Your task to perform on an android device: Turn on the flashlight Image 0: 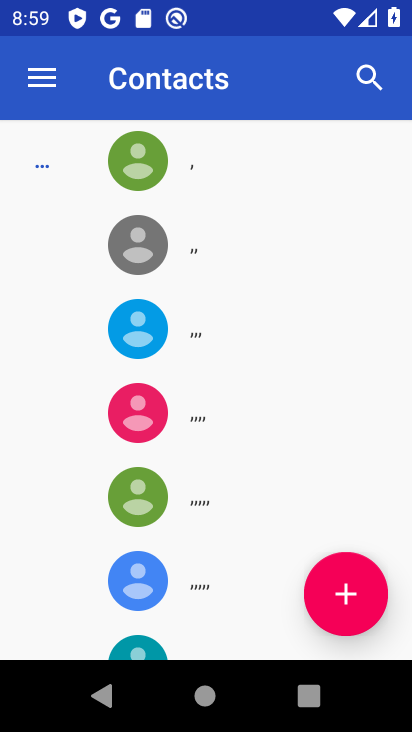
Step 0: press back button
Your task to perform on an android device: Turn on the flashlight Image 1: 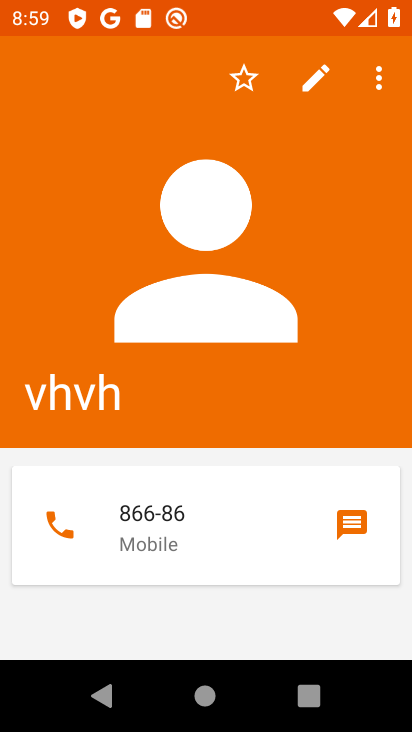
Step 1: press back button
Your task to perform on an android device: Turn on the flashlight Image 2: 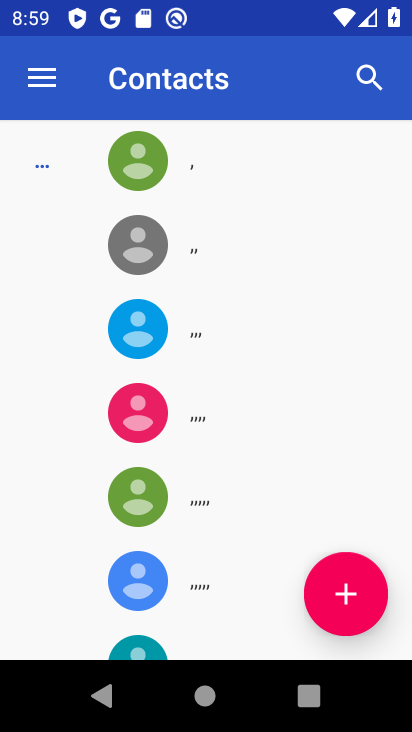
Step 2: press back button
Your task to perform on an android device: Turn on the flashlight Image 3: 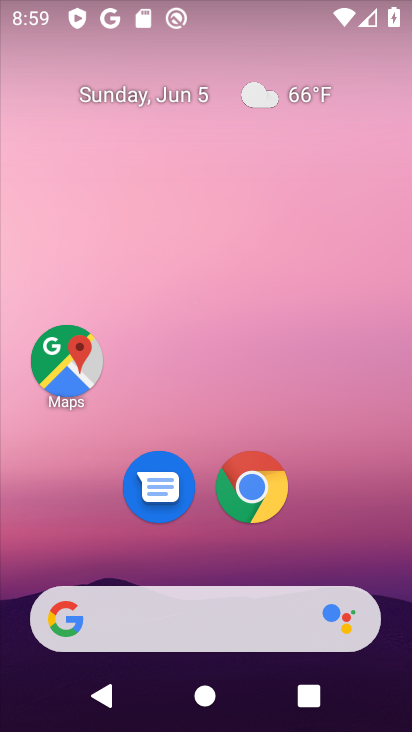
Step 3: drag from (191, 477) to (217, 4)
Your task to perform on an android device: Turn on the flashlight Image 4: 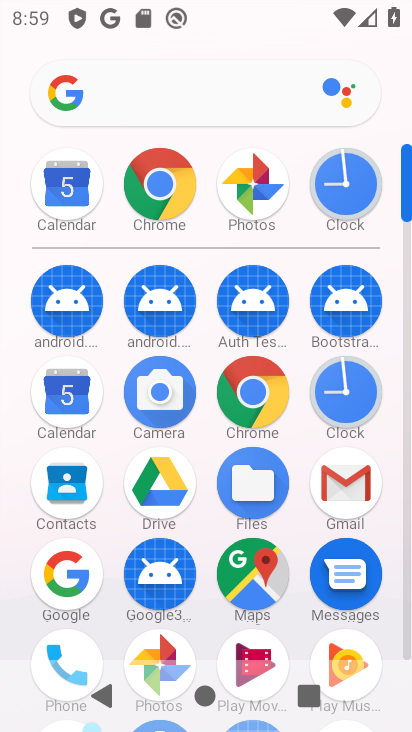
Step 4: drag from (156, 592) to (175, 123)
Your task to perform on an android device: Turn on the flashlight Image 5: 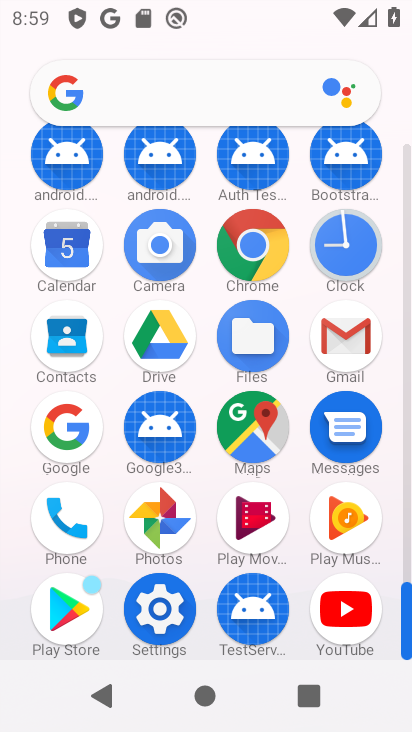
Step 5: click (169, 611)
Your task to perform on an android device: Turn on the flashlight Image 6: 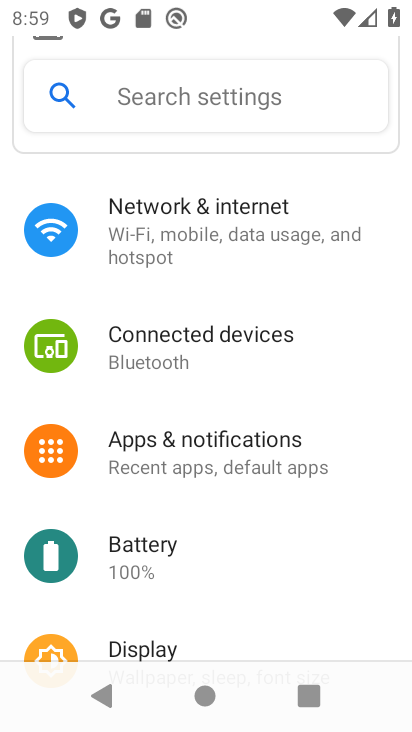
Step 6: click (156, 111)
Your task to perform on an android device: Turn on the flashlight Image 7: 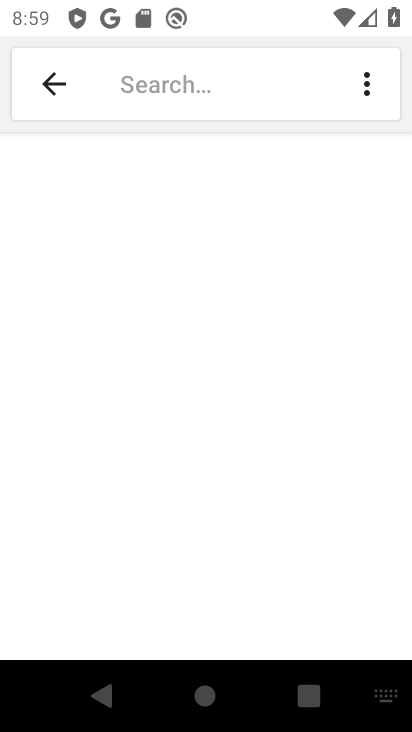
Step 7: type "flashlight"
Your task to perform on an android device: Turn on the flashlight Image 8: 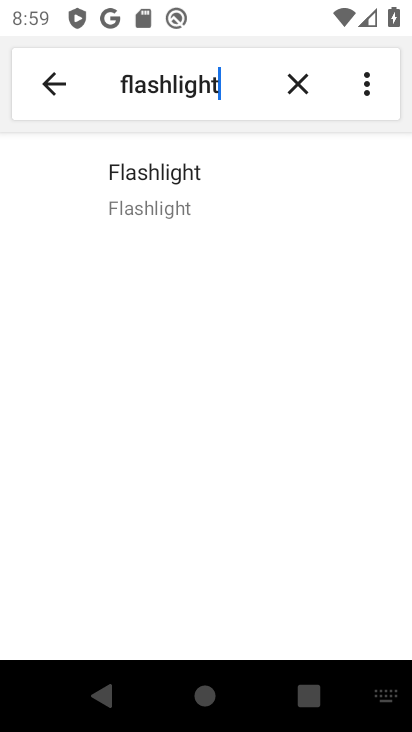
Step 8: click (126, 182)
Your task to perform on an android device: Turn on the flashlight Image 9: 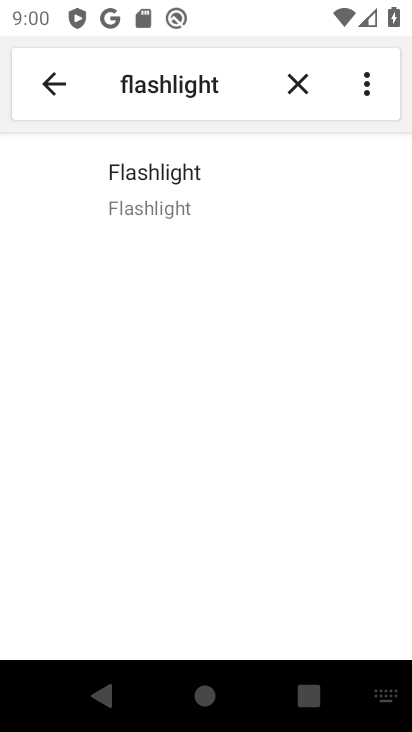
Step 9: click (169, 186)
Your task to perform on an android device: Turn on the flashlight Image 10: 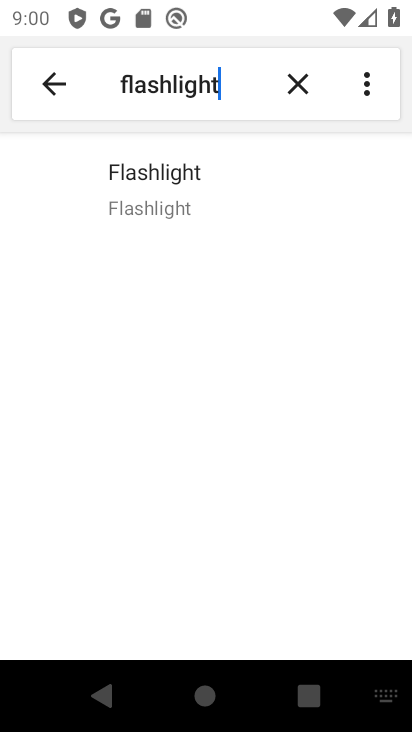
Step 10: task complete